Your task to perform on an android device: Search for sushi restaurants on Maps Image 0: 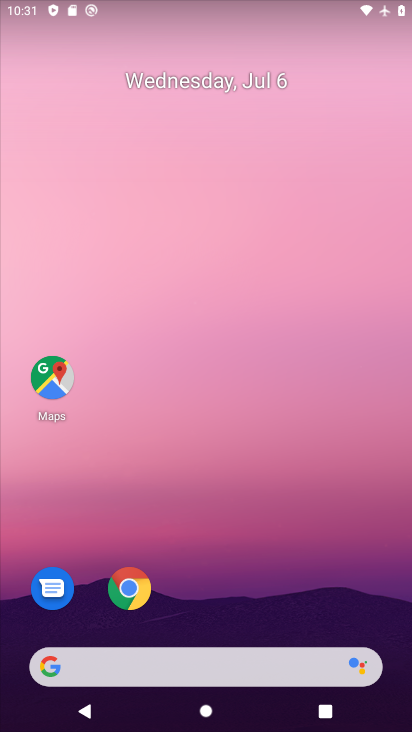
Step 0: click (57, 380)
Your task to perform on an android device: Search for sushi restaurants on Maps Image 1: 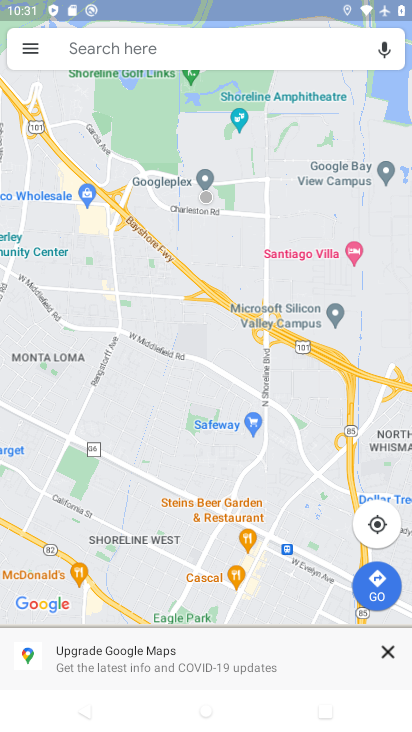
Step 1: click (199, 49)
Your task to perform on an android device: Search for sushi restaurants on Maps Image 2: 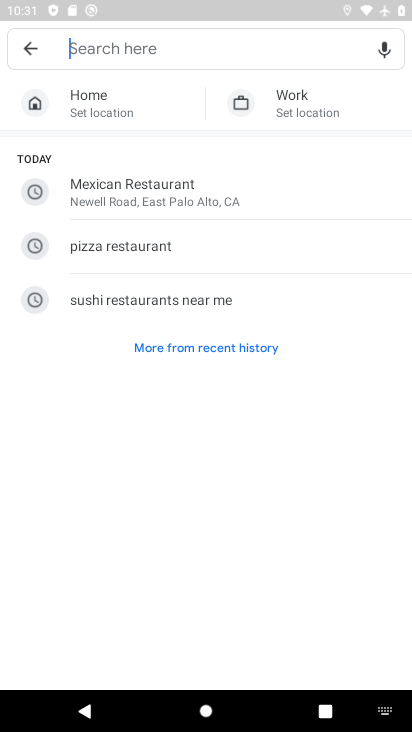
Step 2: type "sushi restaurants"
Your task to perform on an android device: Search for sushi restaurants on Maps Image 3: 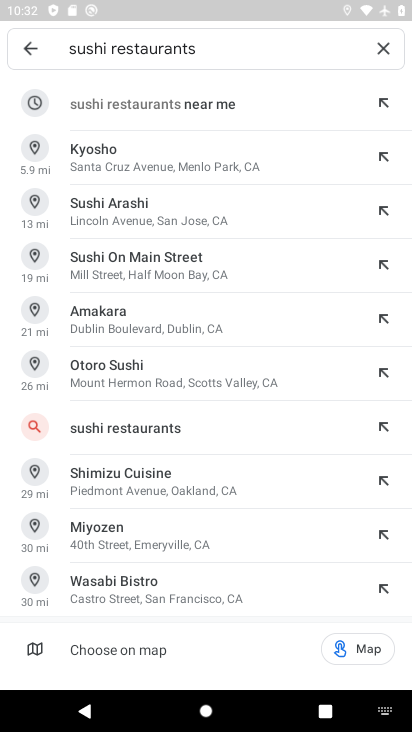
Step 3: click (117, 107)
Your task to perform on an android device: Search for sushi restaurants on Maps Image 4: 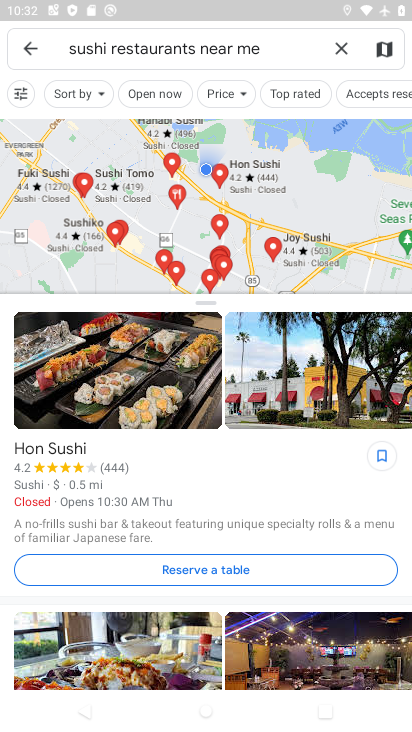
Step 4: task complete